Your task to perform on an android device: turn off javascript in the chrome app Image 0: 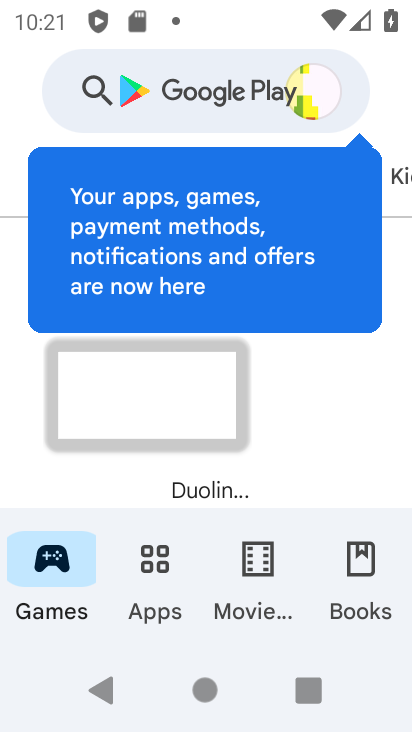
Step 0: press home button
Your task to perform on an android device: turn off javascript in the chrome app Image 1: 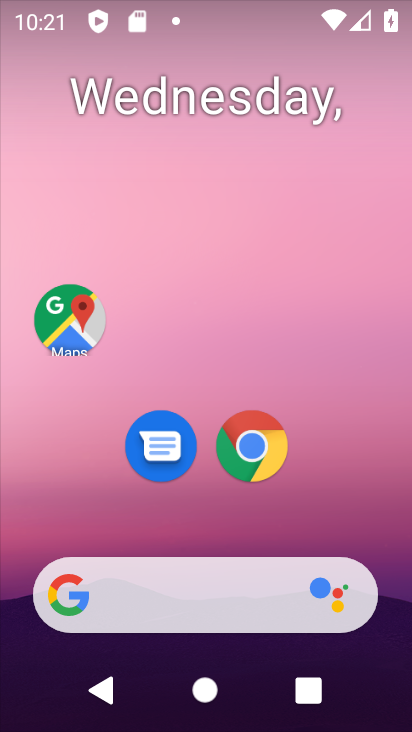
Step 1: click (265, 451)
Your task to perform on an android device: turn off javascript in the chrome app Image 2: 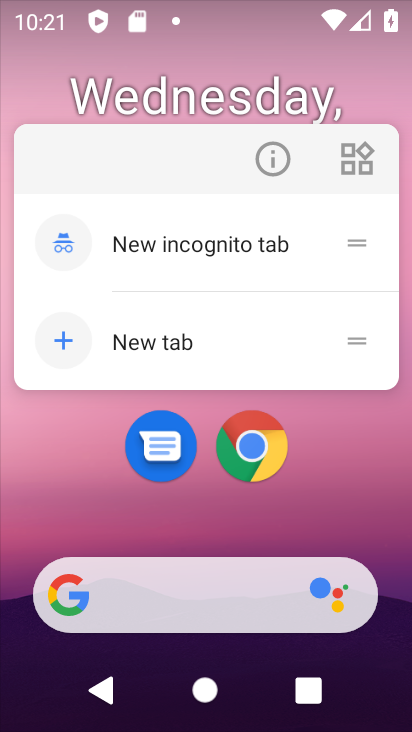
Step 2: click (248, 450)
Your task to perform on an android device: turn off javascript in the chrome app Image 3: 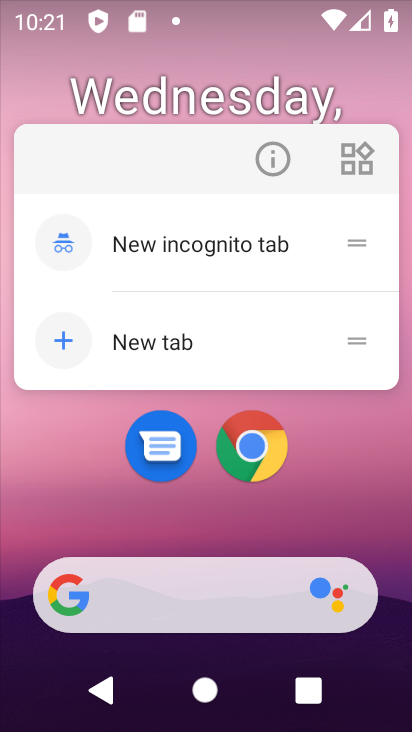
Step 3: click (258, 447)
Your task to perform on an android device: turn off javascript in the chrome app Image 4: 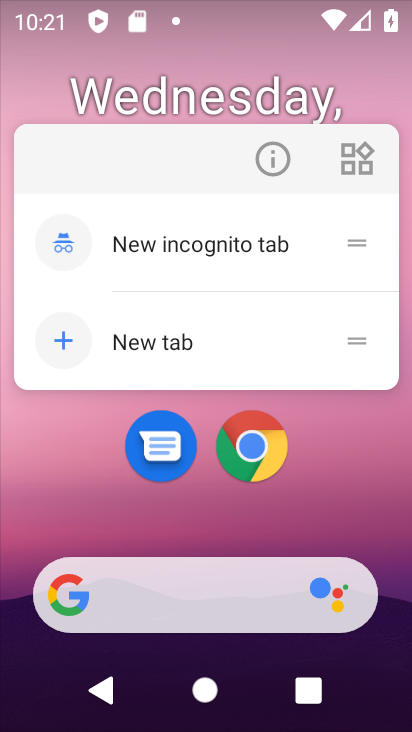
Step 4: click (273, 460)
Your task to perform on an android device: turn off javascript in the chrome app Image 5: 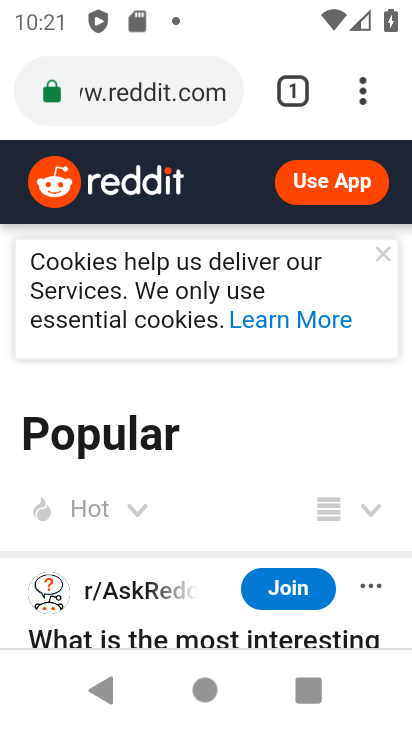
Step 5: drag from (368, 101) to (277, 479)
Your task to perform on an android device: turn off javascript in the chrome app Image 6: 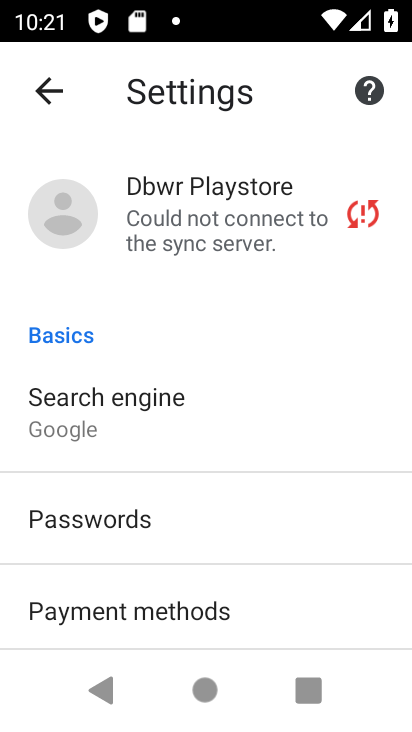
Step 6: drag from (255, 593) to (353, 212)
Your task to perform on an android device: turn off javascript in the chrome app Image 7: 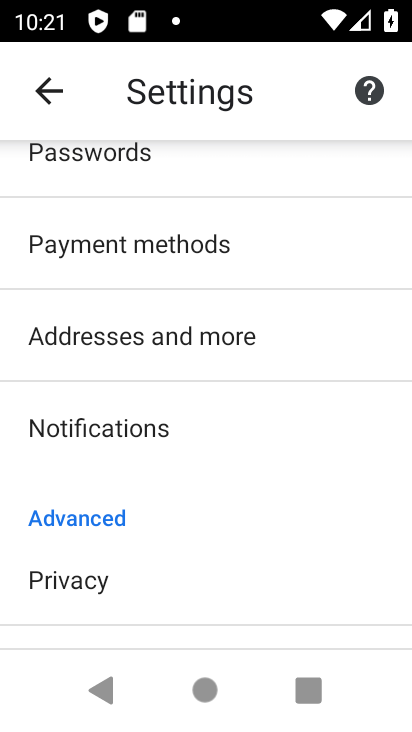
Step 7: drag from (175, 540) to (258, 203)
Your task to perform on an android device: turn off javascript in the chrome app Image 8: 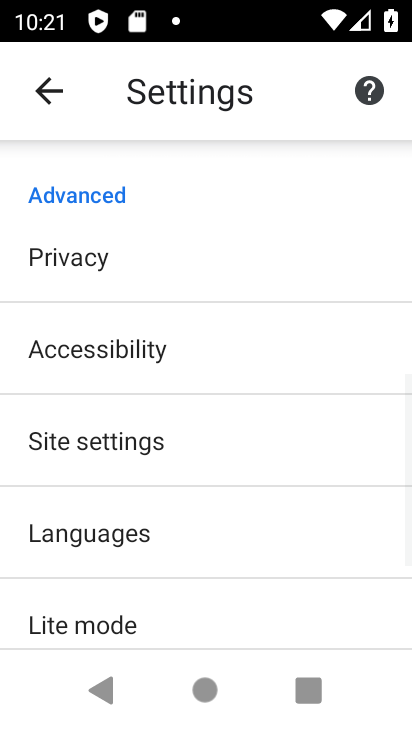
Step 8: click (188, 434)
Your task to perform on an android device: turn off javascript in the chrome app Image 9: 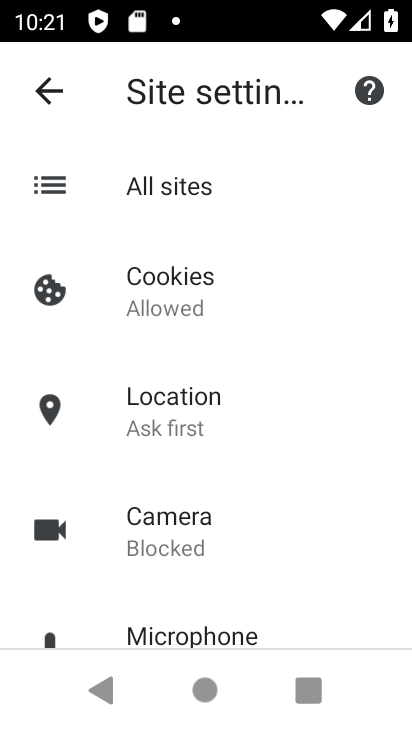
Step 9: drag from (195, 574) to (280, 237)
Your task to perform on an android device: turn off javascript in the chrome app Image 10: 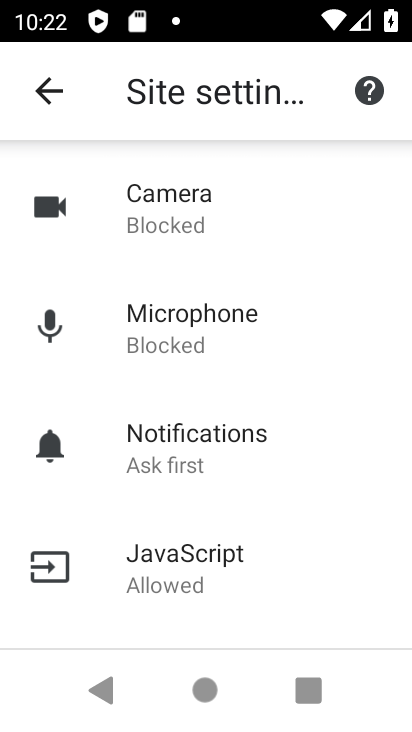
Step 10: click (210, 570)
Your task to perform on an android device: turn off javascript in the chrome app Image 11: 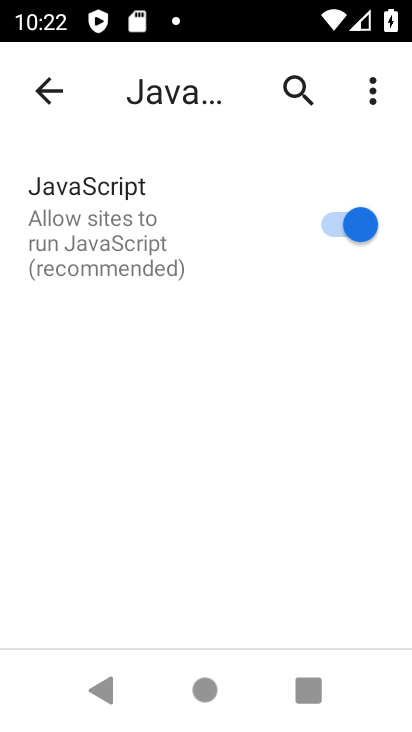
Step 11: click (329, 230)
Your task to perform on an android device: turn off javascript in the chrome app Image 12: 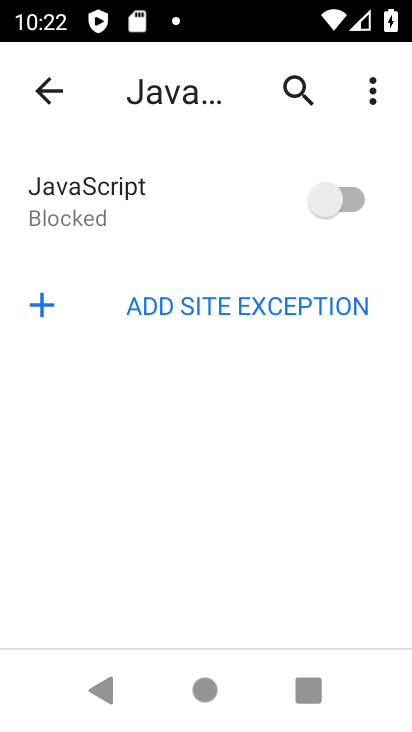
Step 12: task complete